Your task to perform on an android device: Go to location settings Image 0: 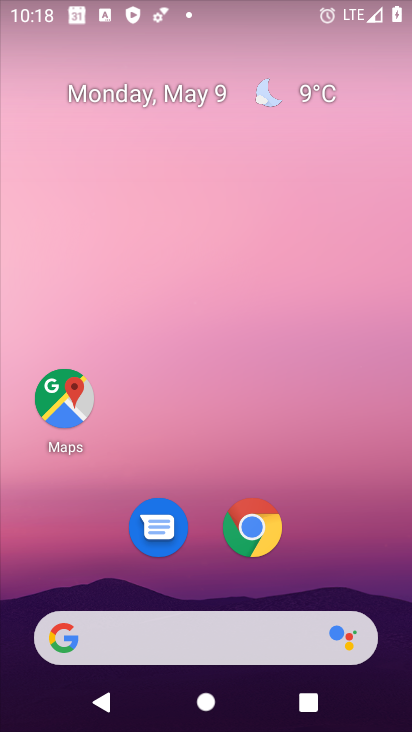
Step 0: drag from (371, 598) to (343, 123)
Your task to perform on an android device: Go to location settings Image 1: 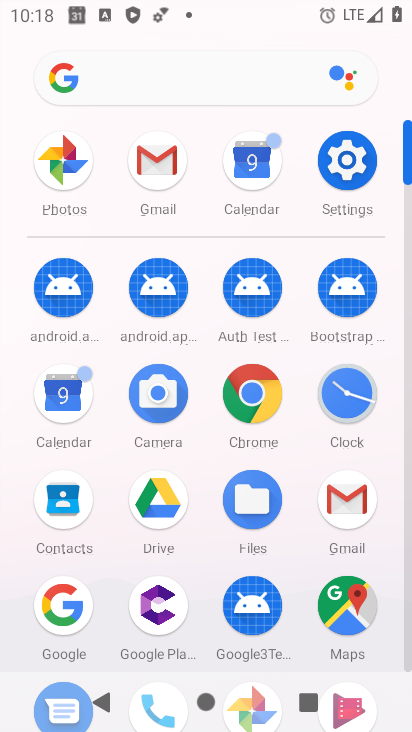
Step 1: click (406, 629)
Your task to perform on an android device: Go to location settings Image 2: 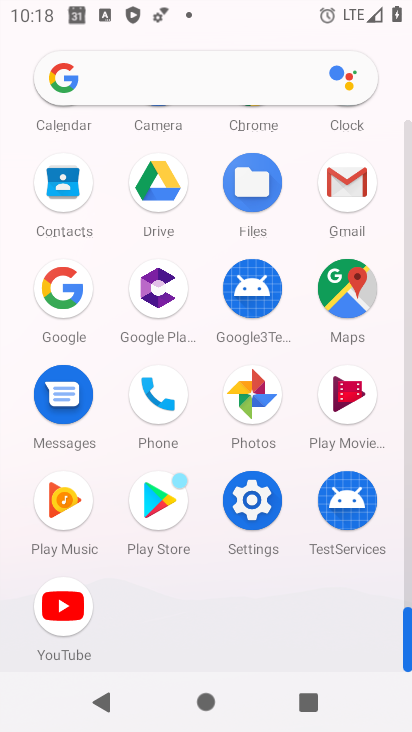
Step 2: click (251, 501)
Your task to perform on an android device: Go to location settings Image 3: 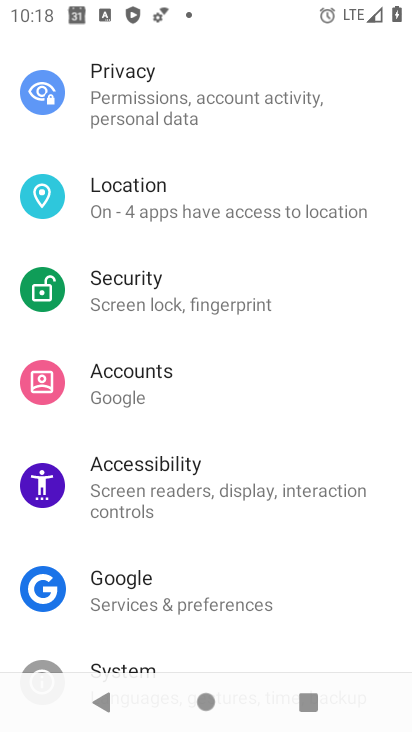
Step 3: click (128, 184)
Your task to perform on an android device: Go to location settings Image 4: 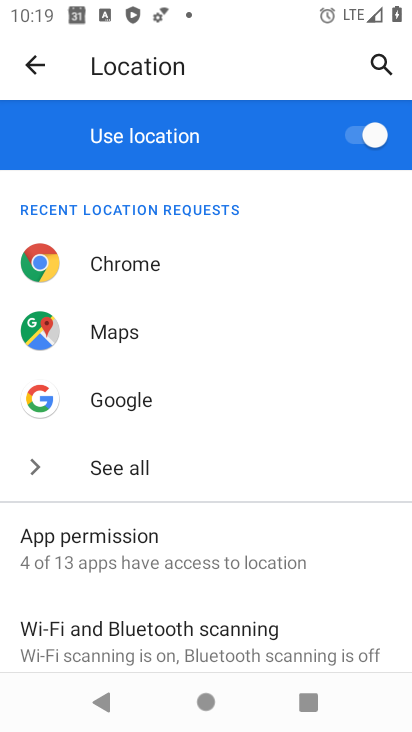
Step 4: drag from (327, 613) to (316, 316)
Your task to perform on an android device: Go to location settings Image 5: 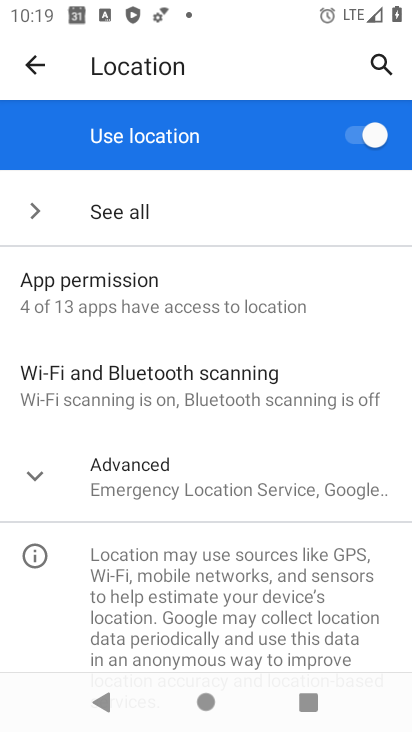
Step 5: click (36, 477)
Your task to perform on an android device: Go to location settings Image 6: 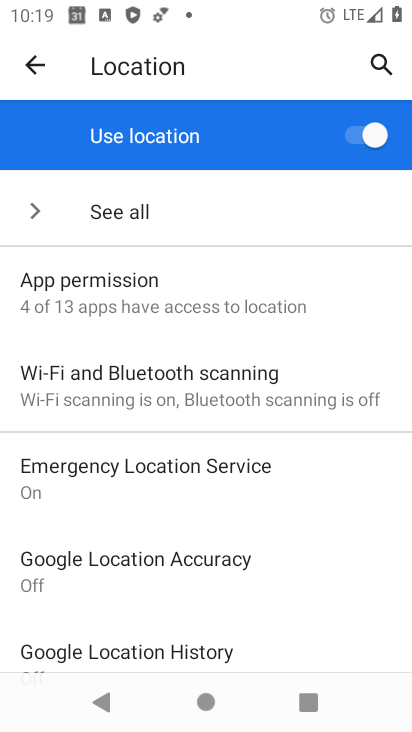
Step 6: task complete